Your task to perform on an android device: turn off data saver in the chrome app Image 0: 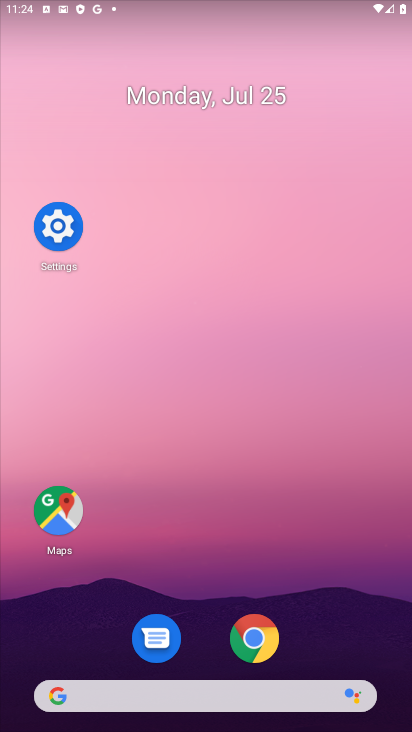
Step 0: click (258, 628)
Your task to perform on an android device: turn off data saver in the chrome app Image 1: 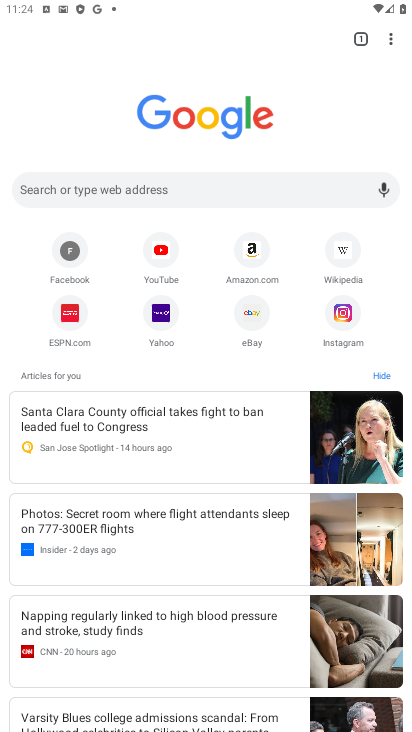
Step 1: click (388, 41)
Your task to perform on an android device: turn off data saver in the chrome app Image 2: 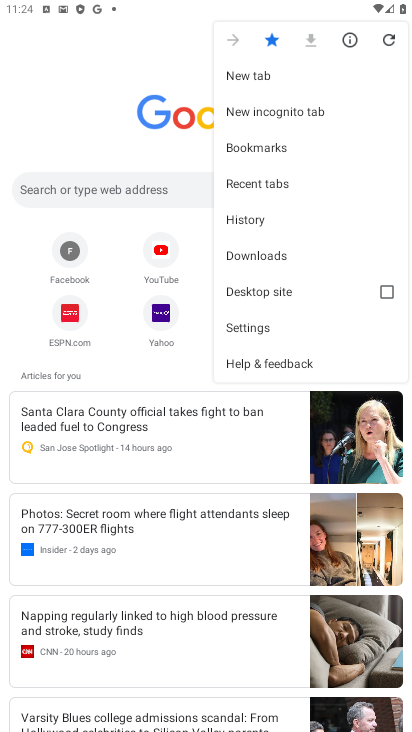
Step 2: click (253, 319)
Your task to perform on an android device: turn off data saver in the chrome app Image 3: 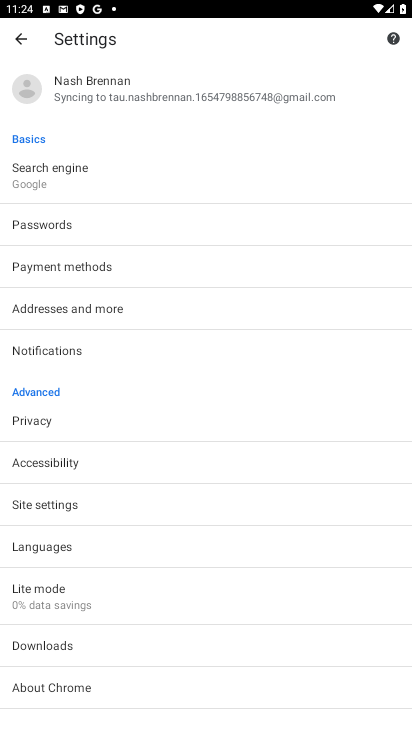
Step 3: click (115, 604)
Your task to perform on an android device: turn off data saver in the chrome app Image 4: 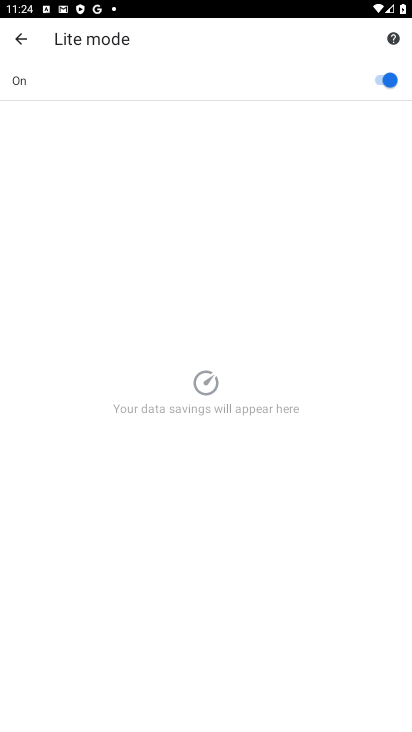
Step 4: click (375, 78)
Your task to perform on an android device: turn off data saver in the chrome app Image 5: 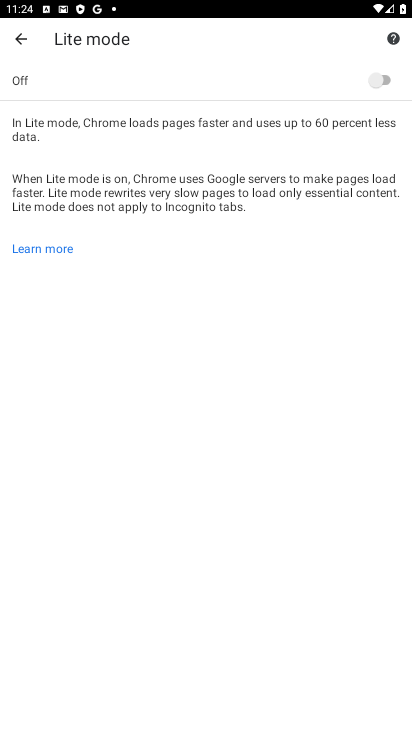
Step 5: task complete